Your task to perform on an android device: Open sound settings Image 0: 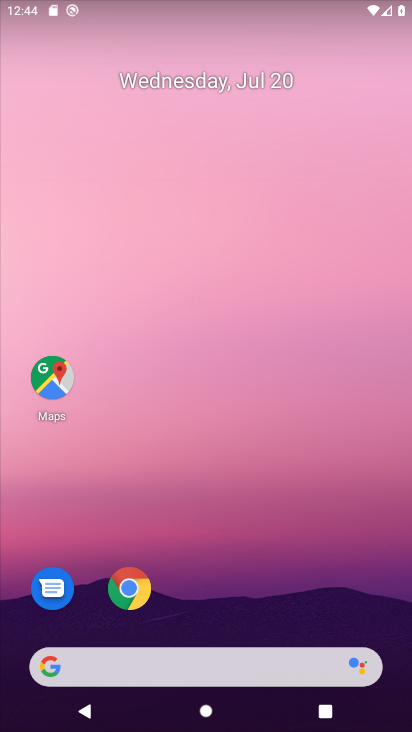
Step 0: drag from (197, 621) to (252, 320)
Your task to perform on an android device: Open sound settings Image 1: 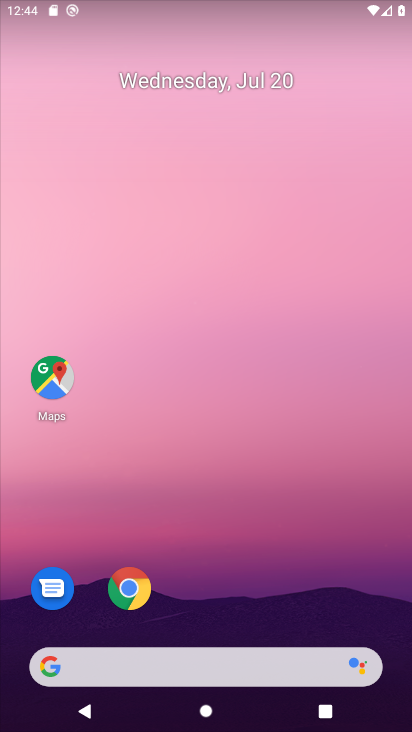
Step 1: click (277, 236)
Your task to perform on an android device: Open sound settings Image 2: 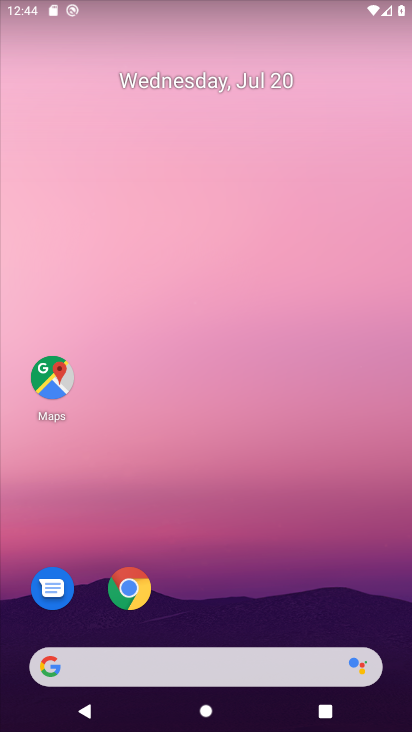
Step 2: drag from (249, 633) to (249, 344)
Your task to perform on an android device: Open sound settings Image 3: 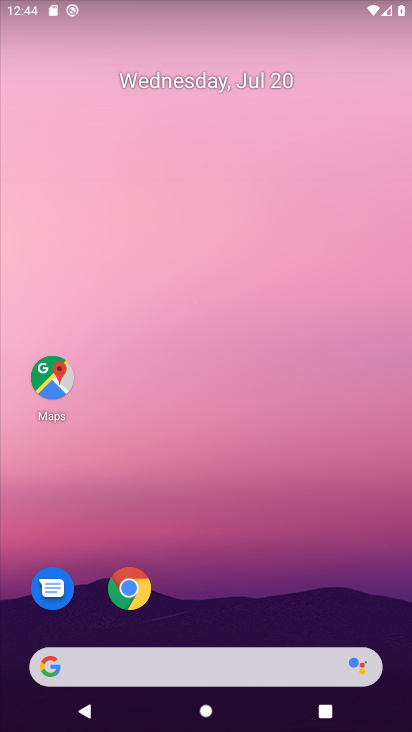
Step 3: drag from (267, 614) to (274, 265)
Your task to perform on an android device: Open sound settings Image 4: 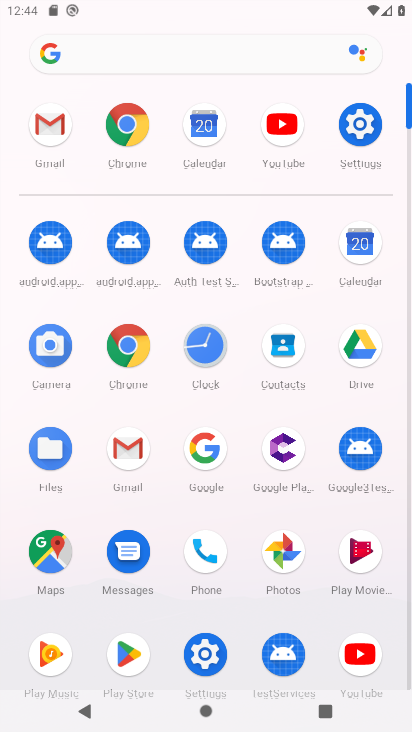
Step 4: click (373, 116)
Your task to perform on an android device: Open sound settings Image 5: 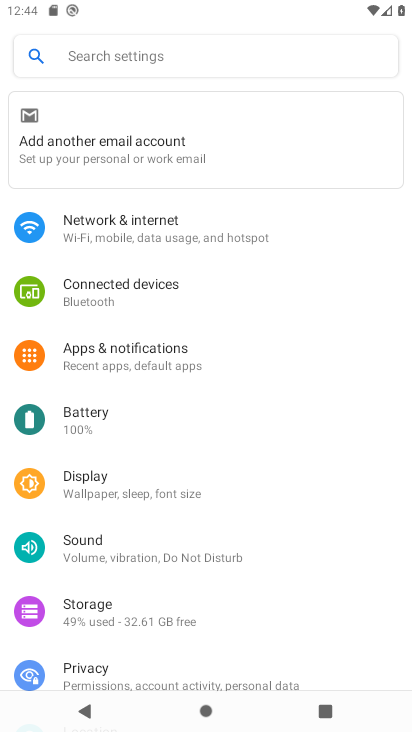
Step 5: click (113, 547)
Your task to perform on an android device: Open sound settings Image 6: 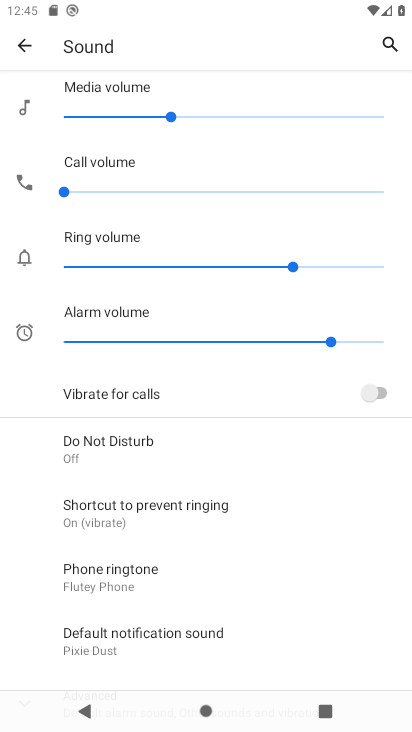
Step 6: task complete